Your task to perform on an android device: Open calendar and show me the second week of next month Image 0: 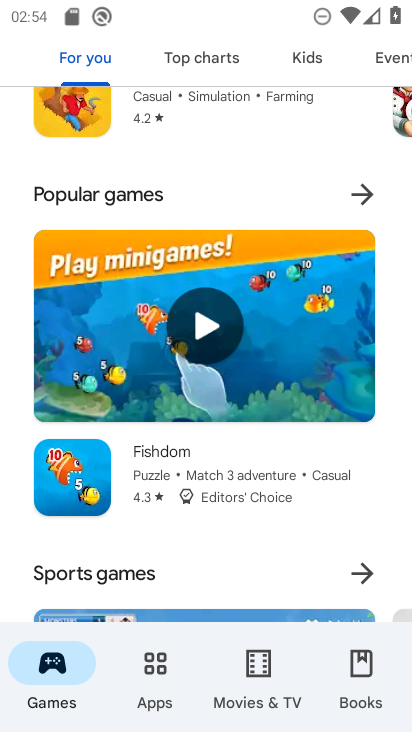
Step 0: press home button
Your task to perform on an android device: Open calendar and show me the second week of next month Image 1: 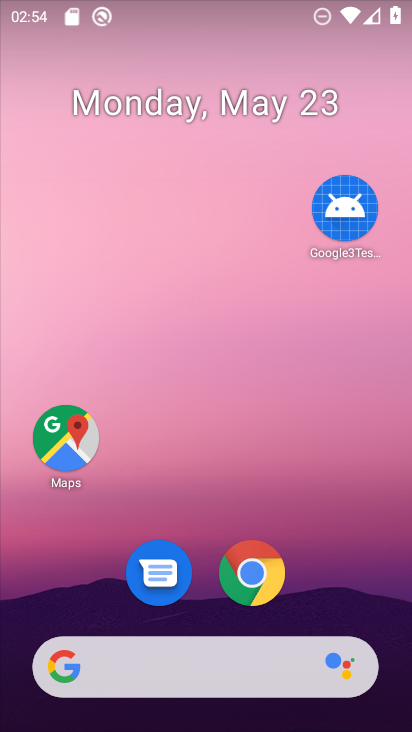
Step 1: drag from (357, 468) to (261, 120)
Your task to perform on an android device: Open calendar and show me the second week of next month Image 2: 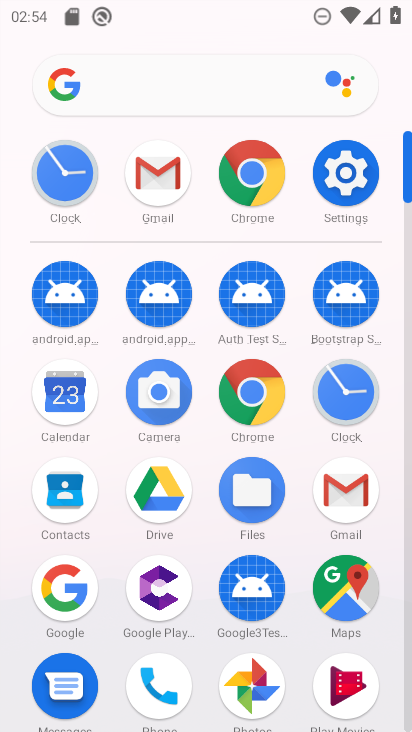
Step 2: click (70, 392)
Your task to perform on an android device: Open calendar and show me the second week of next month Image 3: 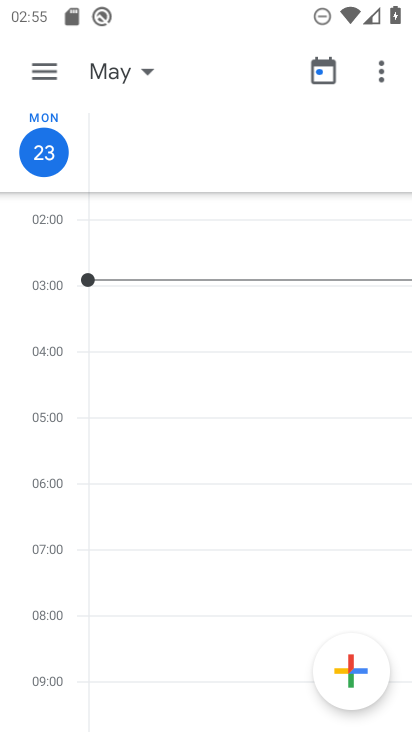
Step 3: click (104, 70)
Your task to perform on an android device: Open calendar and show me the second week of next month Image 4: 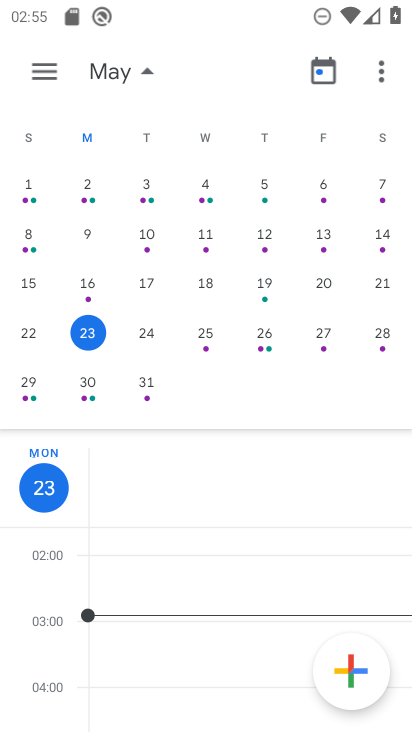
Step 4: drag from (369, 297) to (85, 273)
Your task to perform on an android device: Open calendar and show me the second week of next month Image 5: 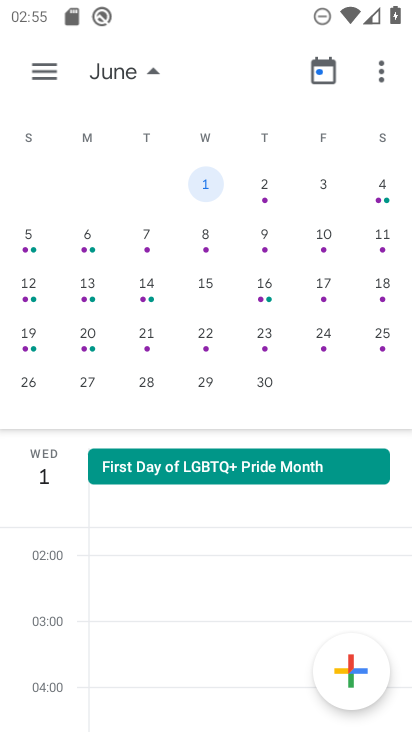
Step 5: click (33, 292)
Your task to perform on an android device: Open calendar and show me the second week of next month Image 6: 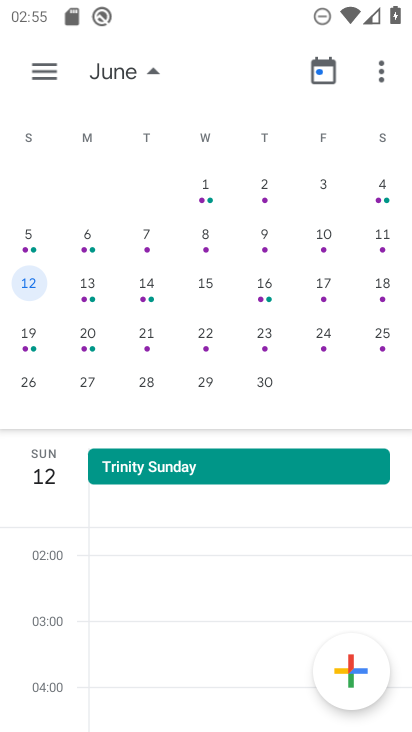
Step 6: click (40, 74)
Your task to perform on an android device: Open calendar and show me the second week of next month Image 7: 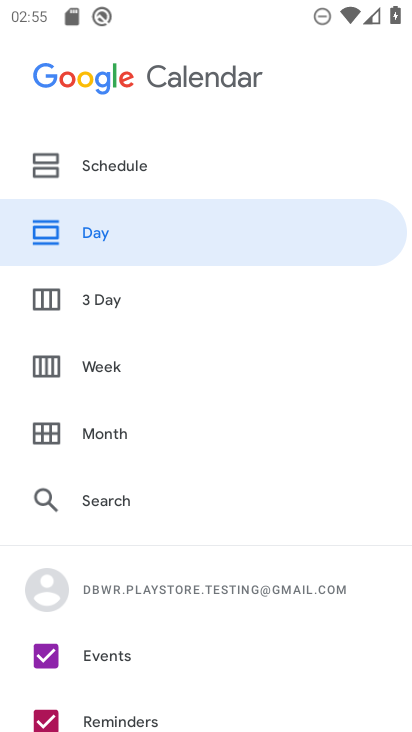
Step 7: click (103, 345)
Your task to perform on an android device: Open calendar and show me the second week of next month Image 8: 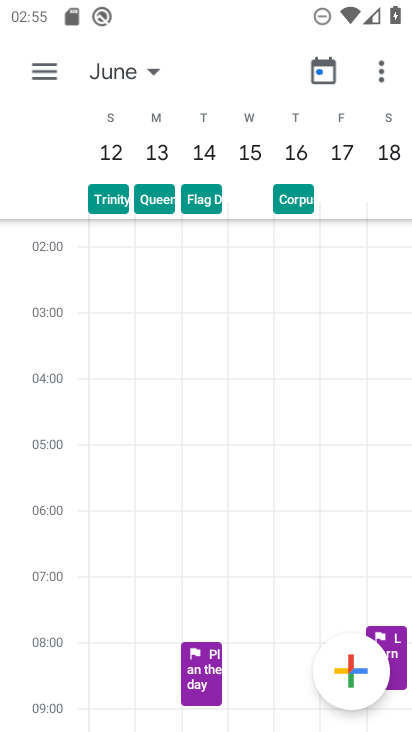
Step 8: task complete